Your task to perform on an android device: Open the phone app and click the voicemail tab. Image 0: 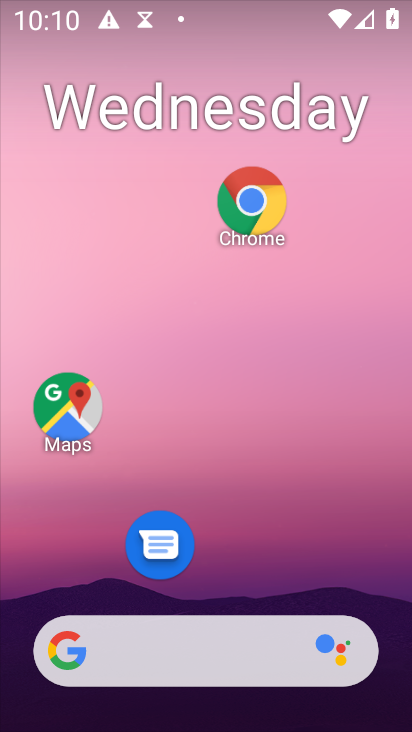
Step 0: drag from (302, 530) to (318, 9)
Your task to perform on an android device: Open the phone app and click the voicemail tab. Image 1: 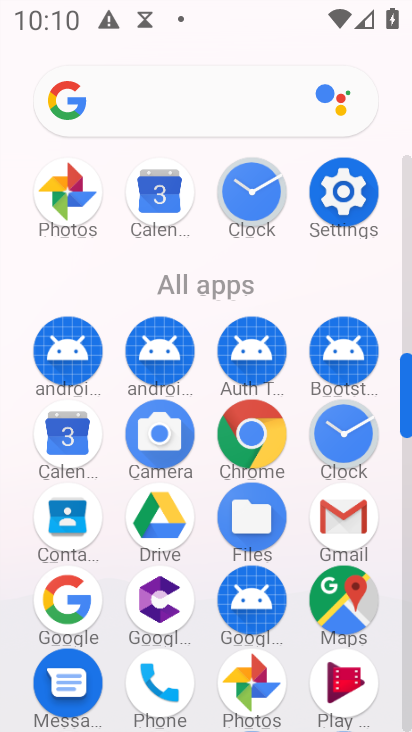
Step 1: click (166, 680)
Your task to perform on an android device: Open the phone app and click the voicemail tab. Image 2: 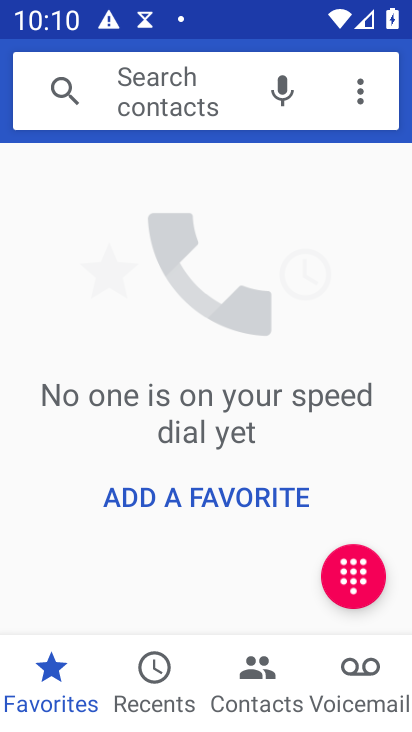
Step 2: click (371, 695)
Your task to perform on an android device: Open the phone app and click the voicemail tab. Image 3: 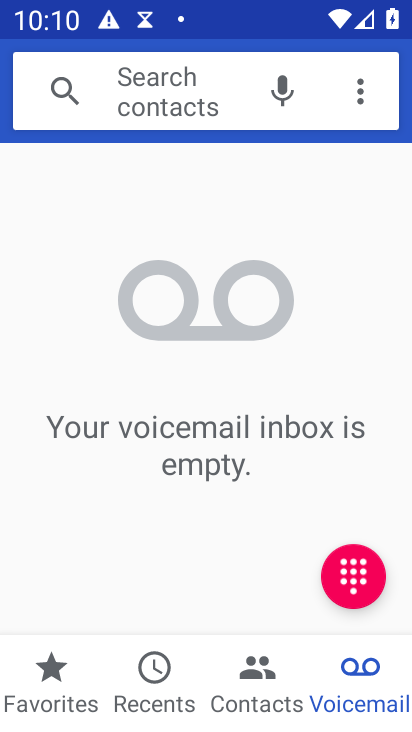
Step 3: task complete